Your task to perform on an android device: Go to Google Image 0: 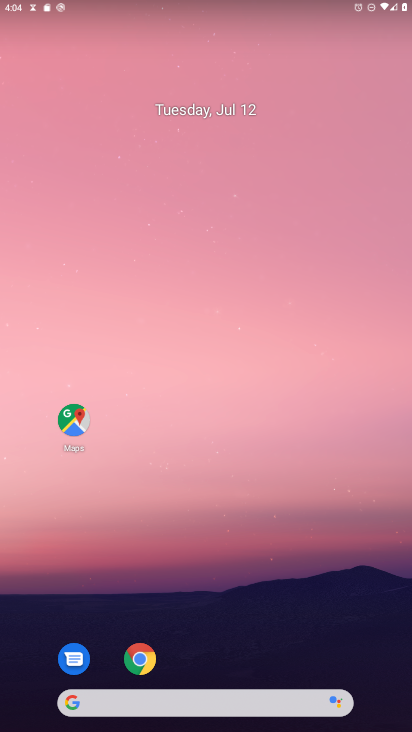
Step 0: drag from (163, 451) to (149, 181)
Your task to perform on an android device: Go to Google Image 1: 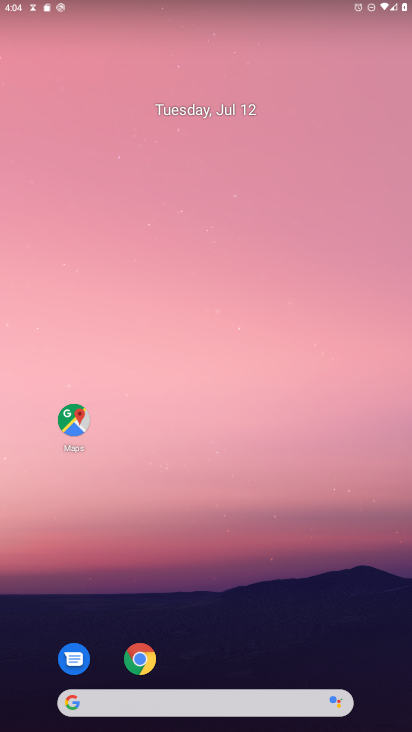
Step 1: drag from (210, 518) to (194, 105)
Your task to perform on an android device: Go to Google Image 2: 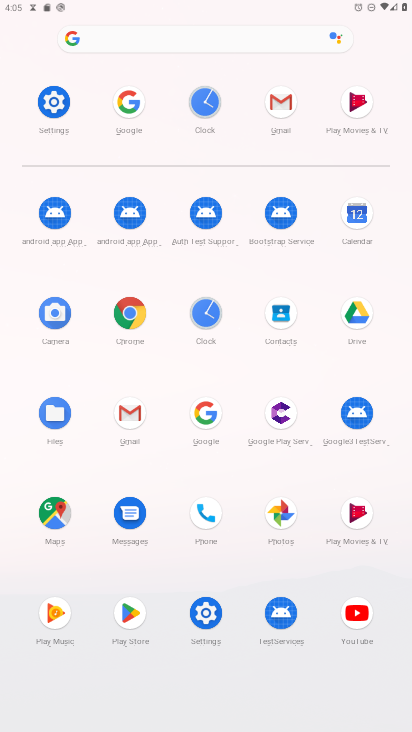
Step 2: click (214, 423)
Your task to perform on an android device: Go to Google Image 3: 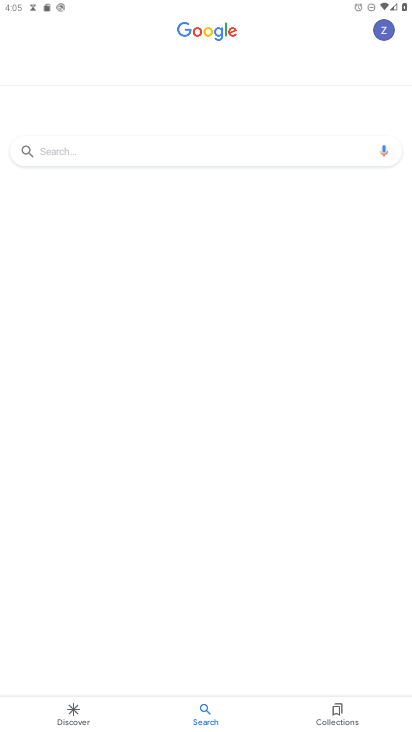
Step 3: task complete